Your task to perform on an android device: Open settings Image 0: 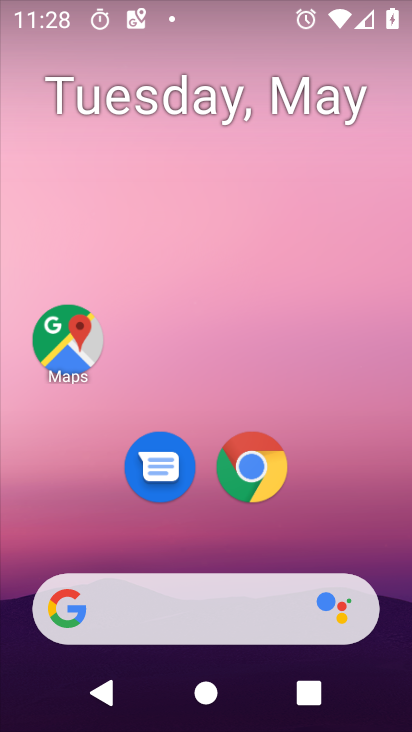
Step 0: drag from (342, 519) to (247, 11)
Your task to perform on an android device: Open settings Image 1: 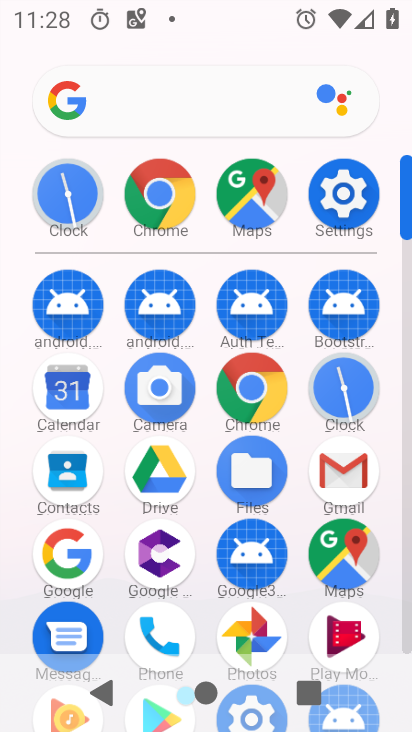
Step 1: drag from (7, 514) to (19, 235)
Your task to perform on an android device: Open settings Image 2: 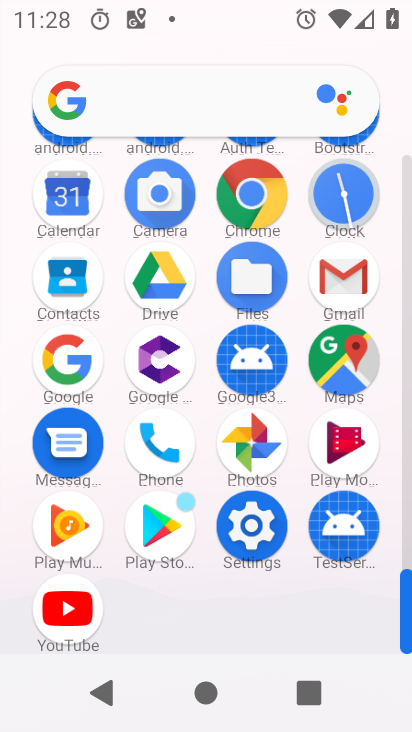
Step 2: click (249, 520)
Your task to perform on an android device: Open settings Image 3: 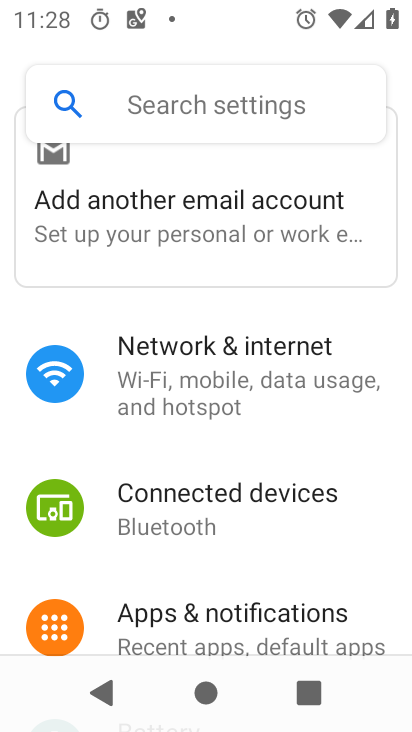
Step 3: task complete